Your task to perform on an android device: Open my contact list Image 0: 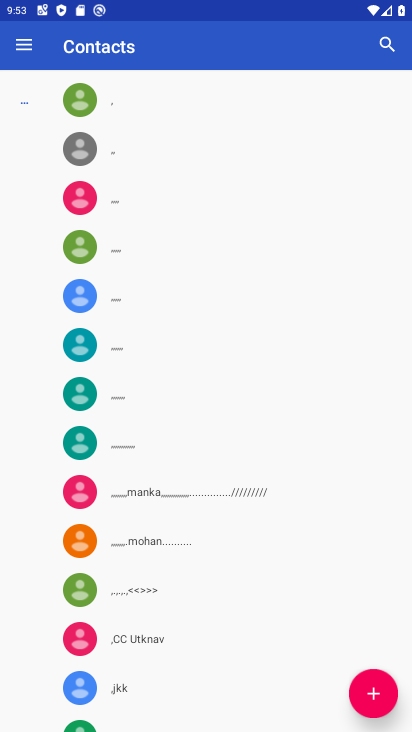
Step 0: press home button
Your task to perform on an android device: Open my contact list Image 1: 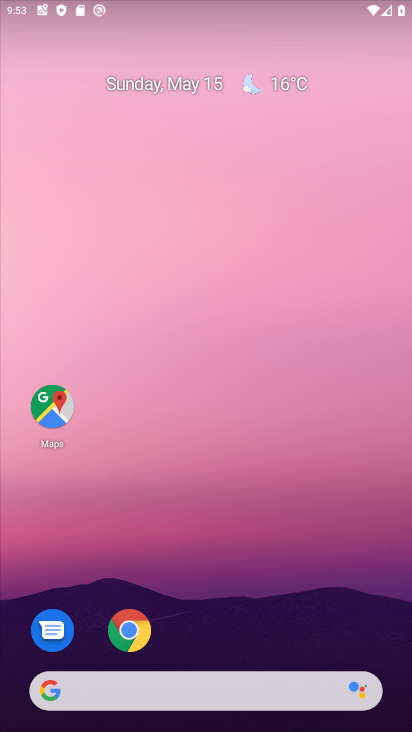
Step 1: drag from (208, 632) to (221, 144)
Your task to perform on an android device: Open my contact list Image 2: 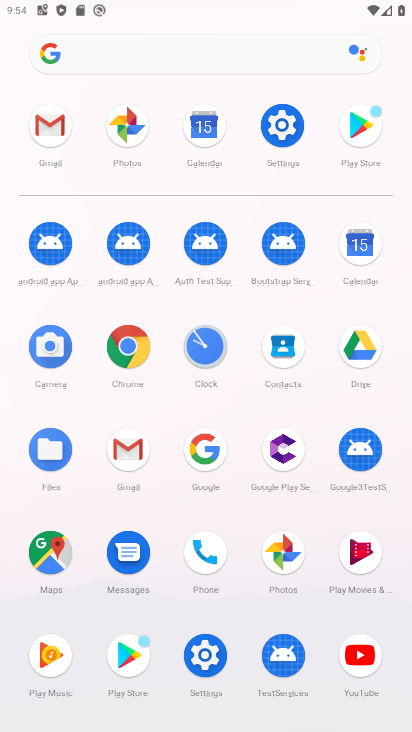
Step 2: click (299, 354)
Your task to perform on an android device: Open my contact list Image 3: 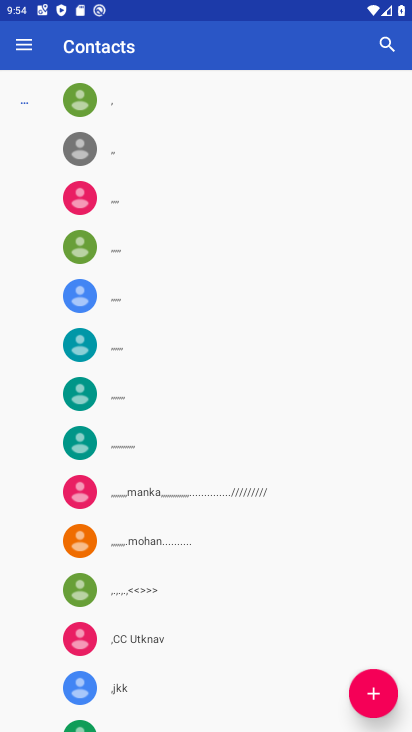
Step 3: task complete